Your task to perform on an android device: toggle sleep mode Image 0: 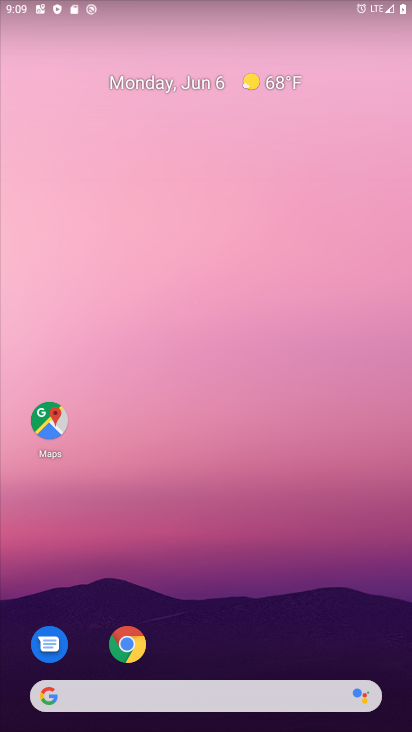
Step 0: drag from (287, 703) to (254, 109)
Your task to perform on an android device: toggle sleep mode Image 1: 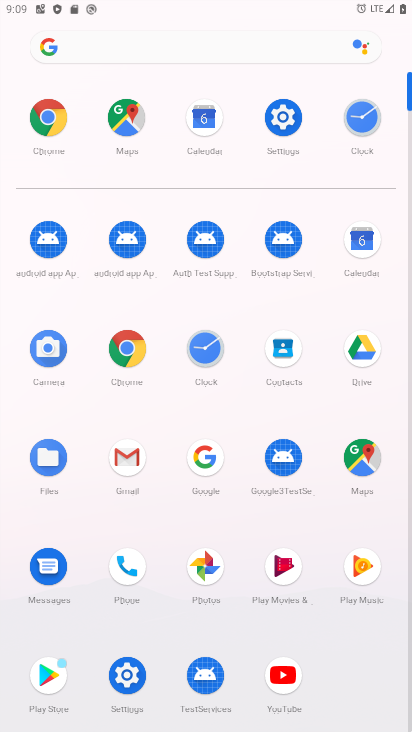
Step 1: click (286, 117)
Your task to perform on an android device: toggle sleep mode Image 2: 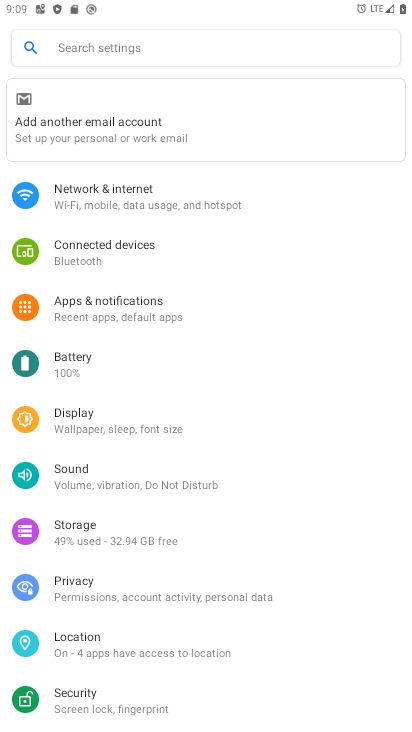
Step 2: click (131, 36)
Your task to perform on an android device: toggle sleep mode Image 3: 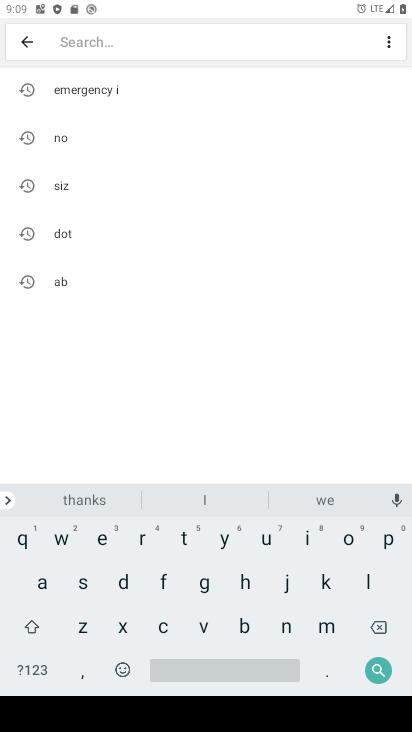
Step 3: click (75, 580)
Your task to perform on an android device: toggle sleep mode Image 4: 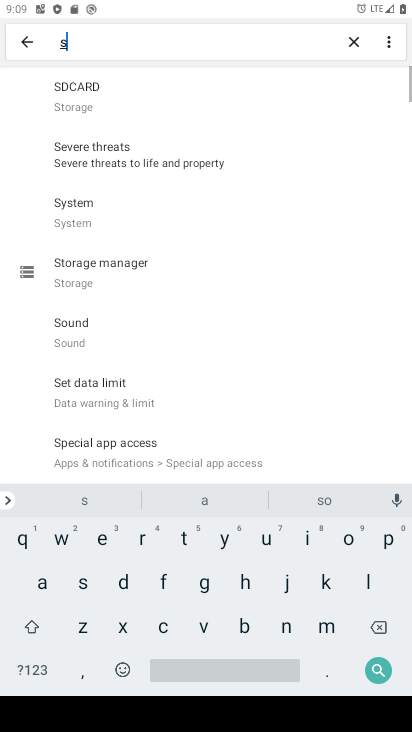
Step 4: click (361, 588)
Your task to perform on an android device: toggle sleep mode Image 5: 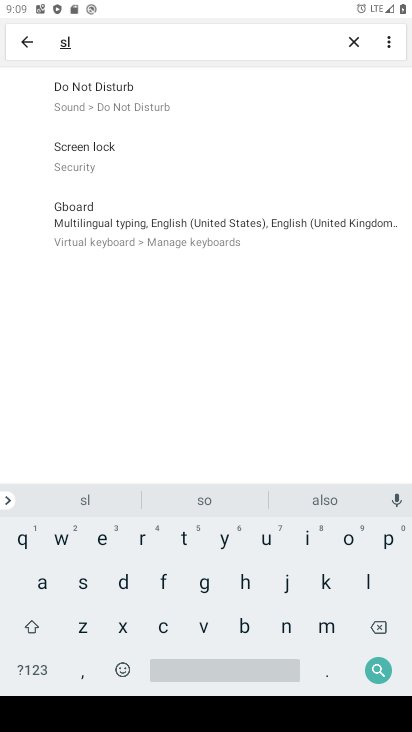
Step 5: click (111, 101)
Your task to perform on an android device: toggle sleep mode Image 6: 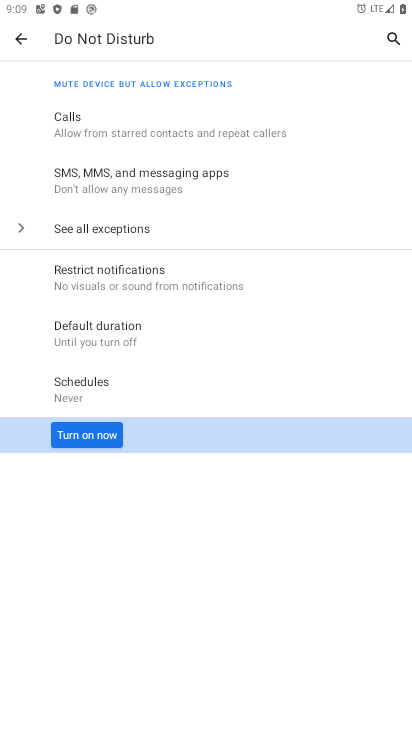
Step 6: click (83, 436)
Your task to perform on an android device: toggle sleep mode Image 7: 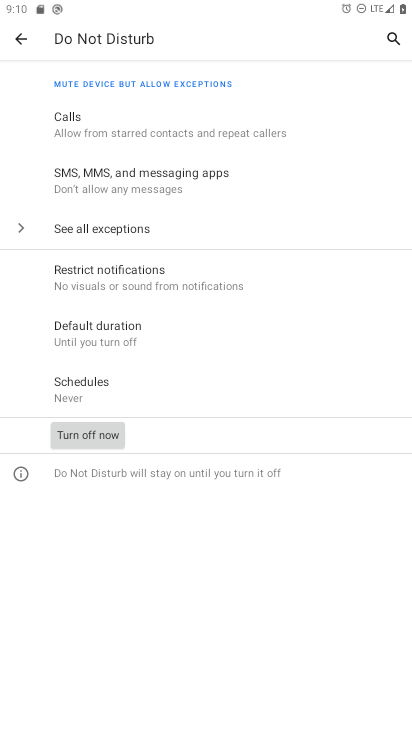
Step 7: task complete